Your task to perform on an android device: open wifi settings Image 0: 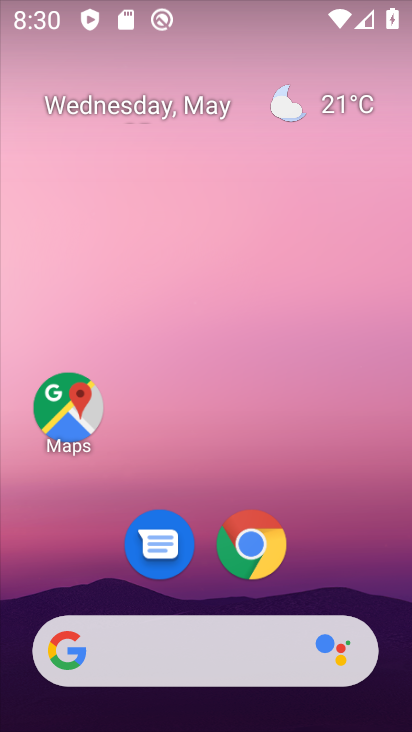
Step 0: drag from (323, 566) to (233, 13)
Your task to perform on an android device: open wifi settings Image 1: 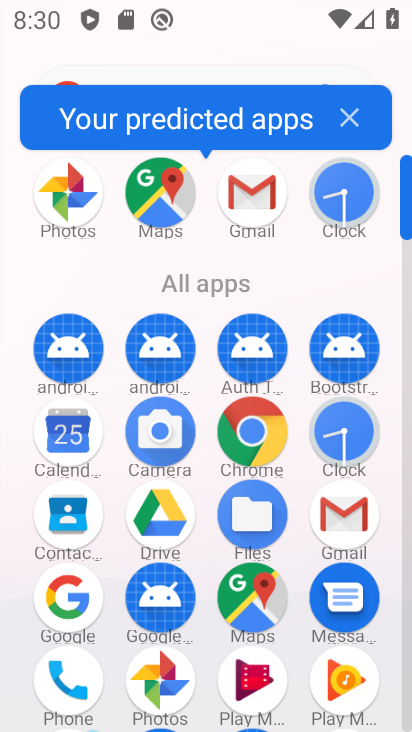
Step 1: drag from (19, 556) to (9, 301)
Your task to perform on an android device: open wifi settings Image 2: 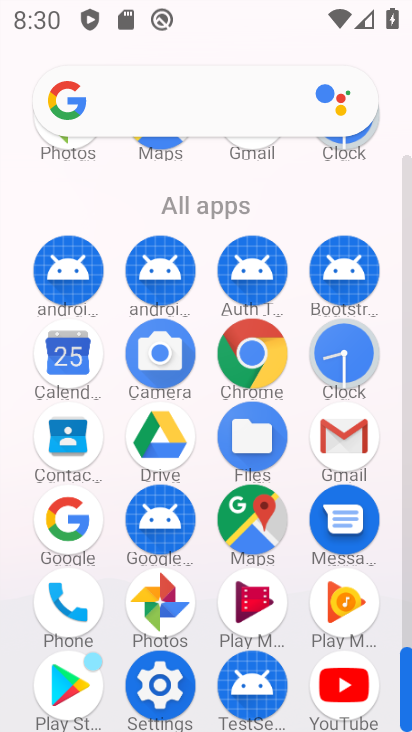
Step 2: click (159, 683)
Your task to perform on an android device: open wifi settings Image 3: 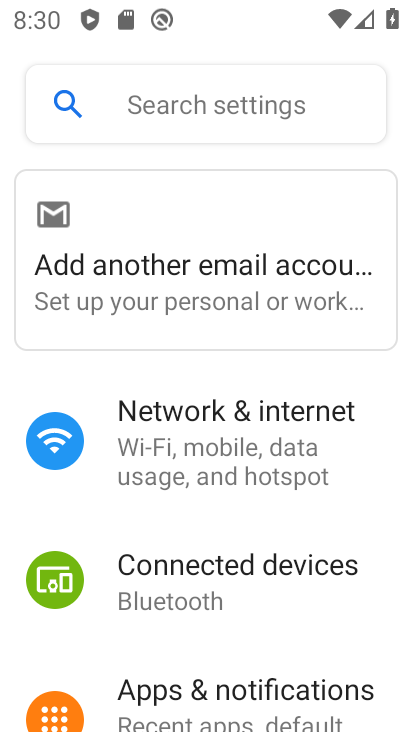
Step 3: click (206, 453)
Your task to perform on an android device: open wifi settings Image 4: 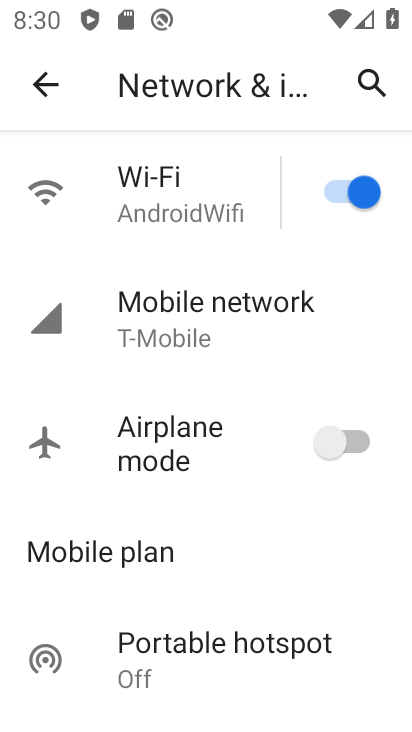
Step 4: click (157, 196)
Your task to perform on an android device: open wifi settings Image 5: 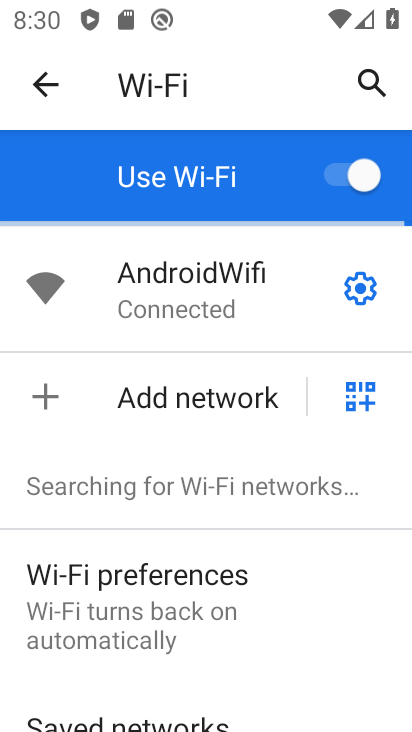
Step 5: task complete